Your task to perform on an android device: turn off sleep mode Image 0: 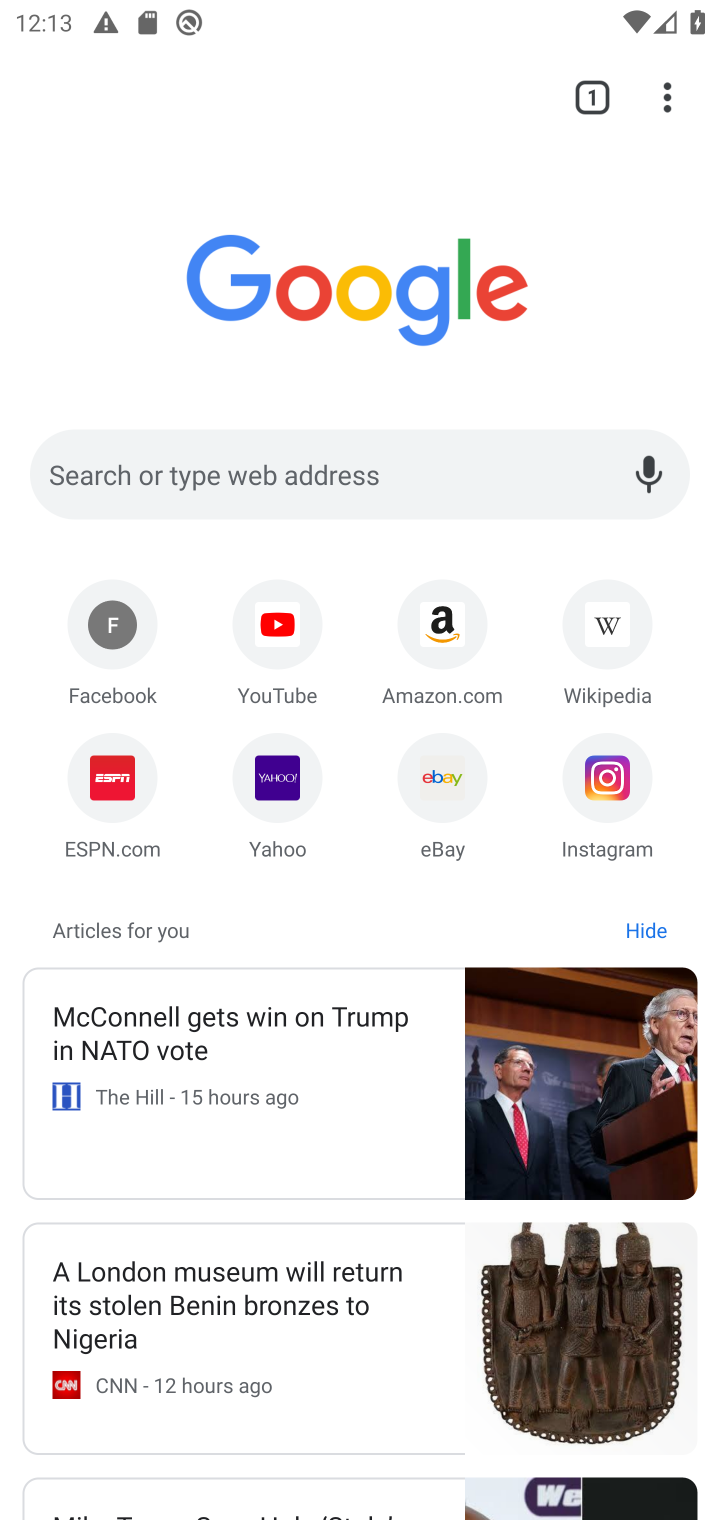
Step 0: press home button
Your task to perform on an android device: turn off sleep mode Image 1: 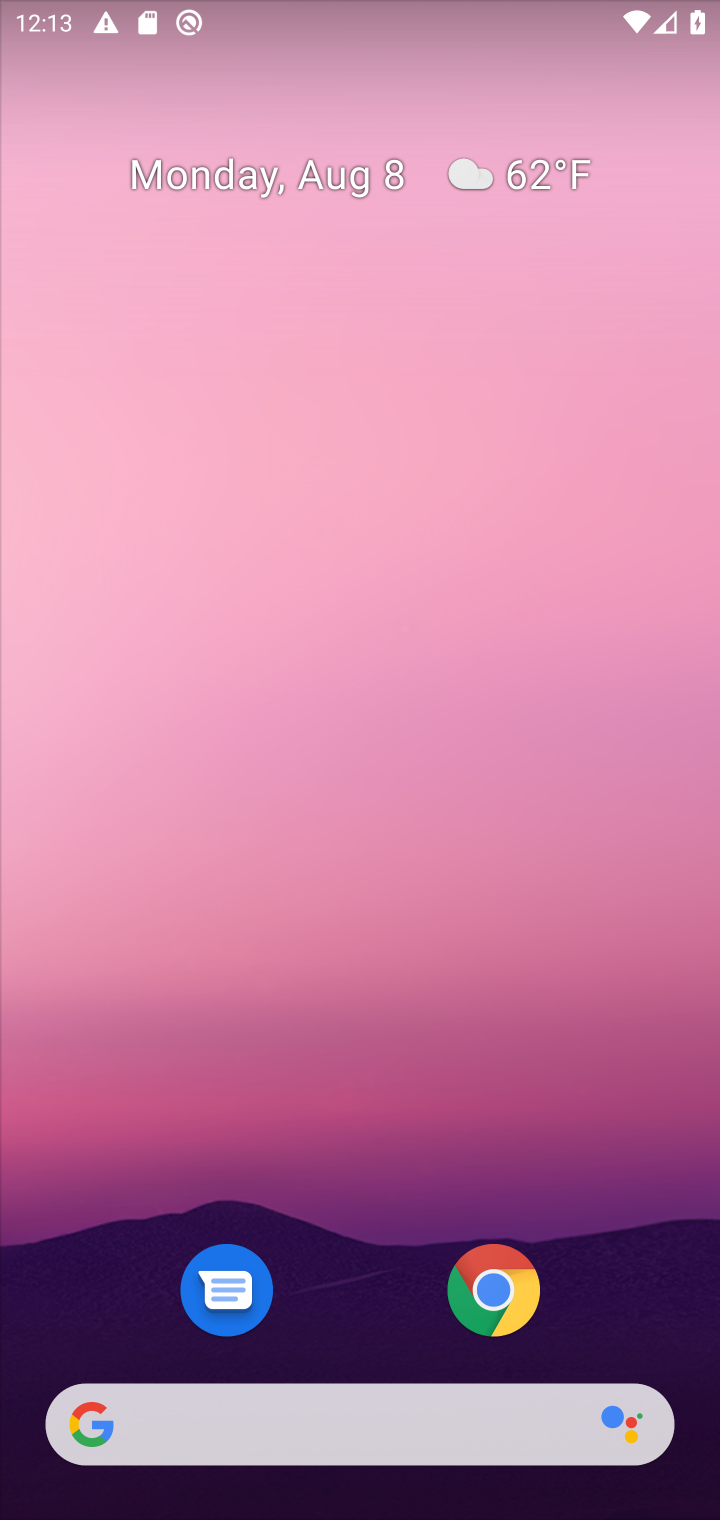
Step 1: drag from (332, 1320) to (439, 49)
Your task to perform on an android device: turn off sleep mode Image 2: 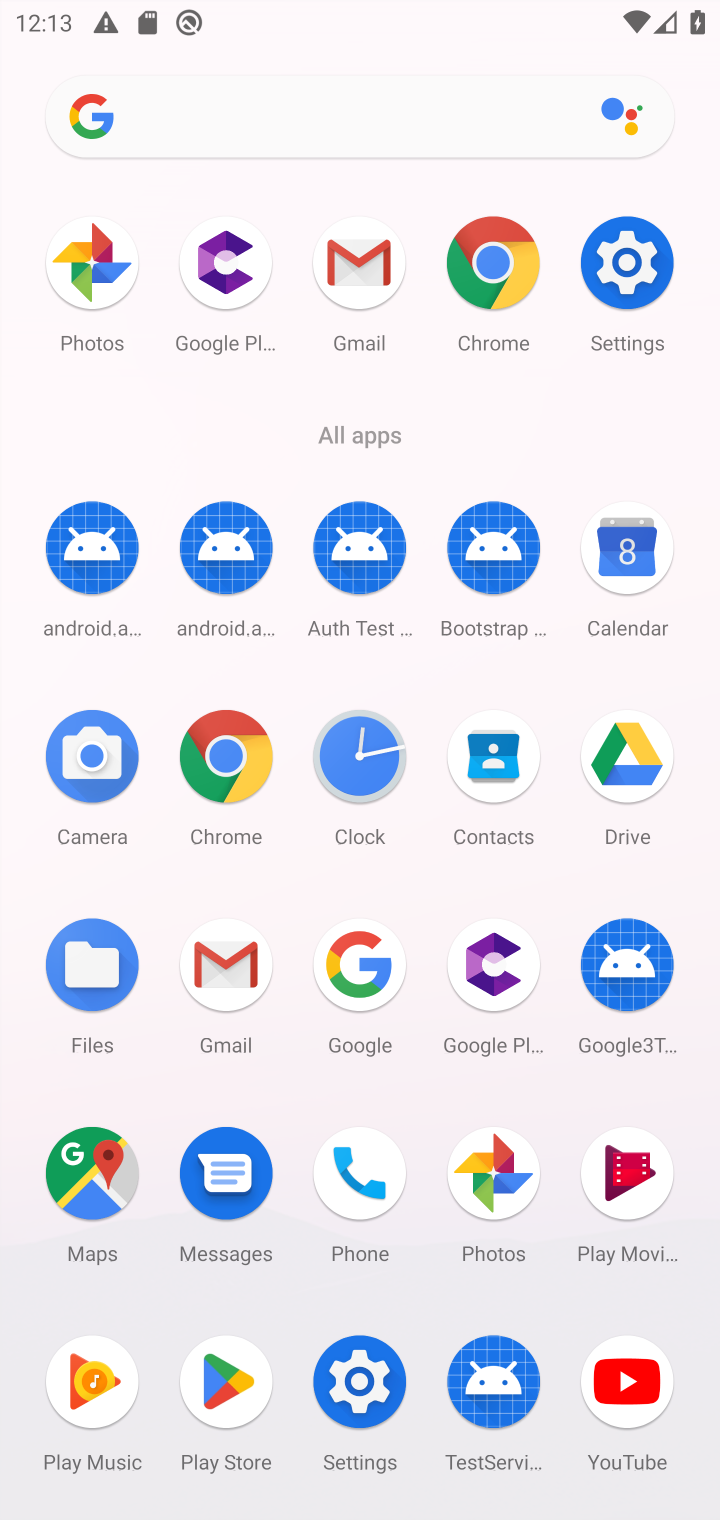
Step 2: click (353, 1383)
Your task to perform on an android device: turn off sleep mode Image 3: 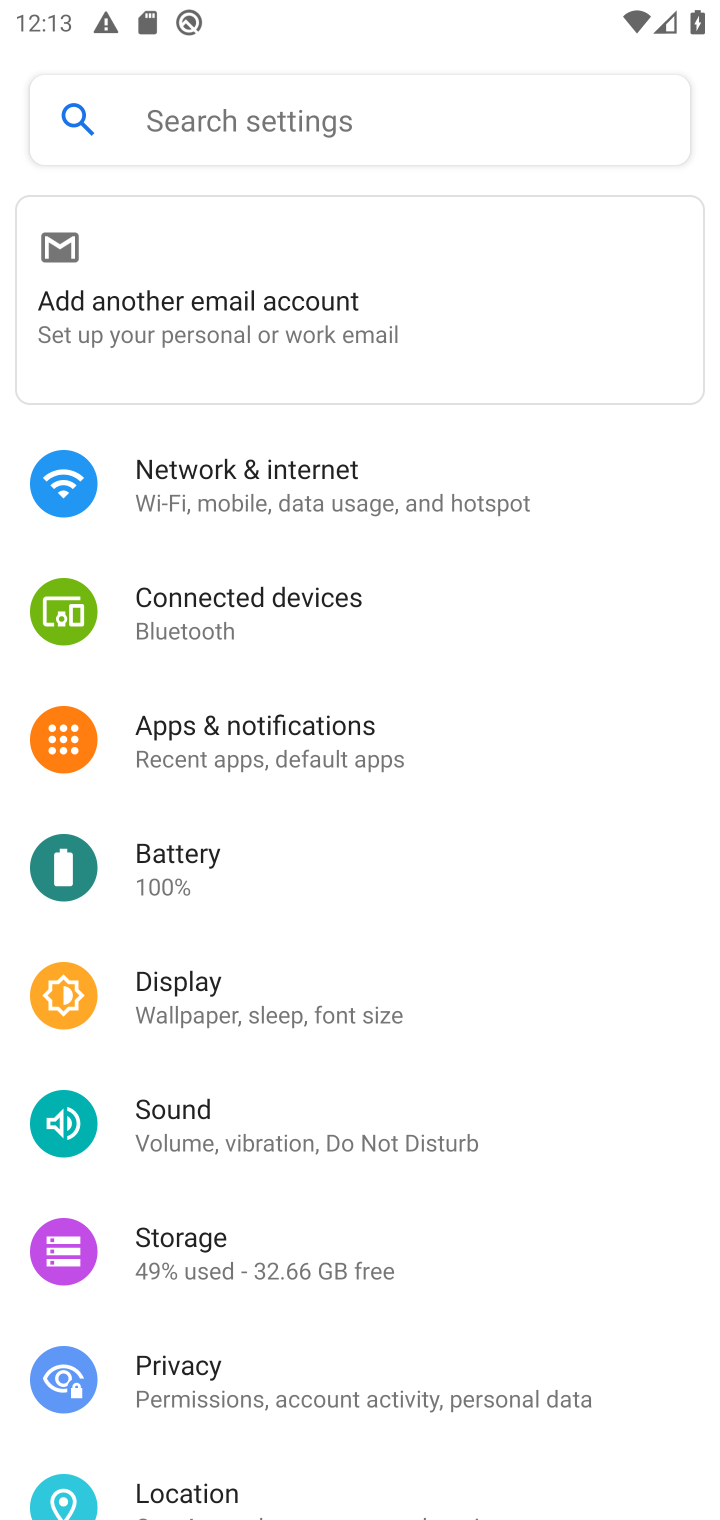
Step 3: drag from (289, 1191) to (258, 1500)
Your task to perform on an android device: turn off sleep mode Image 4: 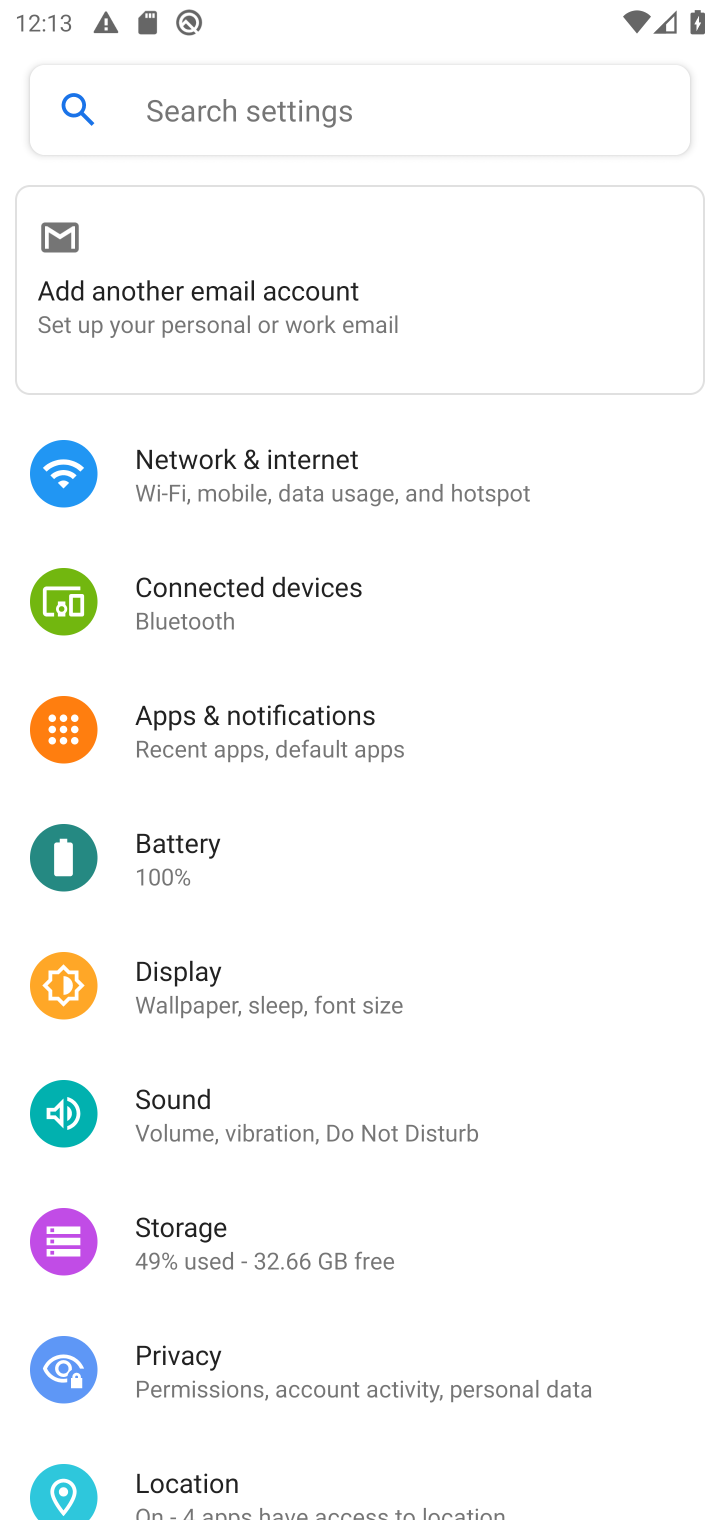
Step 4: click (337, 119)
Your task to perform on an android device: turn off sleep mode Image 5: 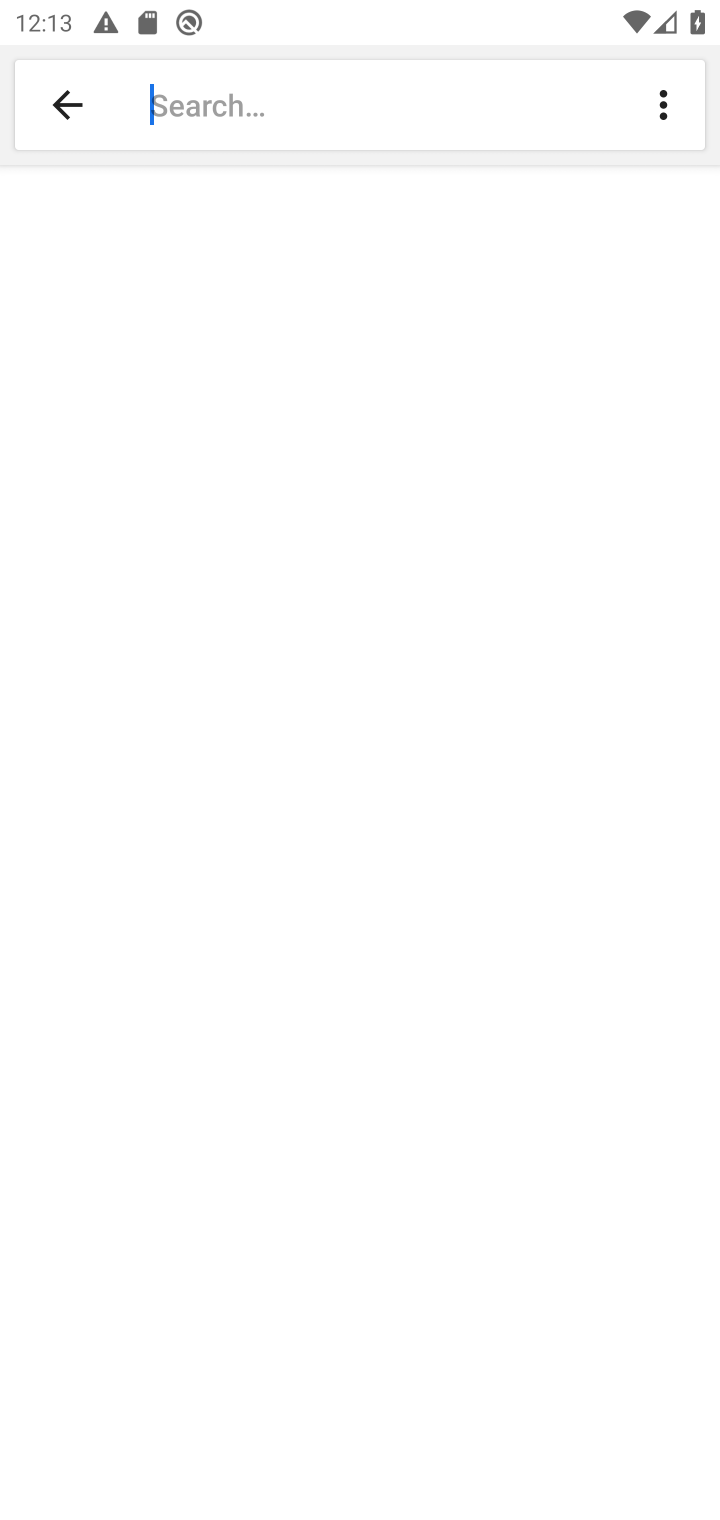
Step 5: click (498, 100)
Your task to perform on an android device: turn off sleep mode Image 6: 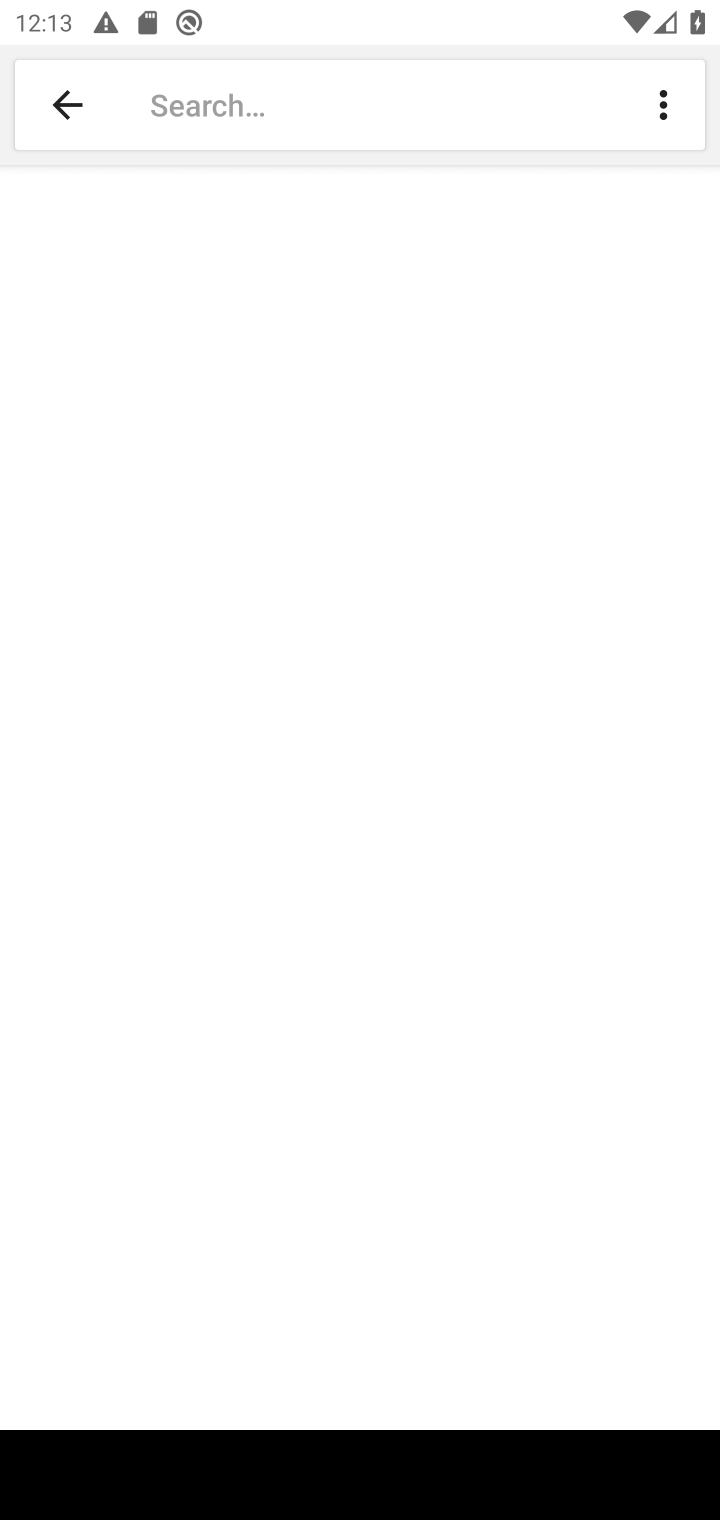
Step 6: type "sleep mode"
Your task to perform on an android device: turn off sleep mode Image 7: 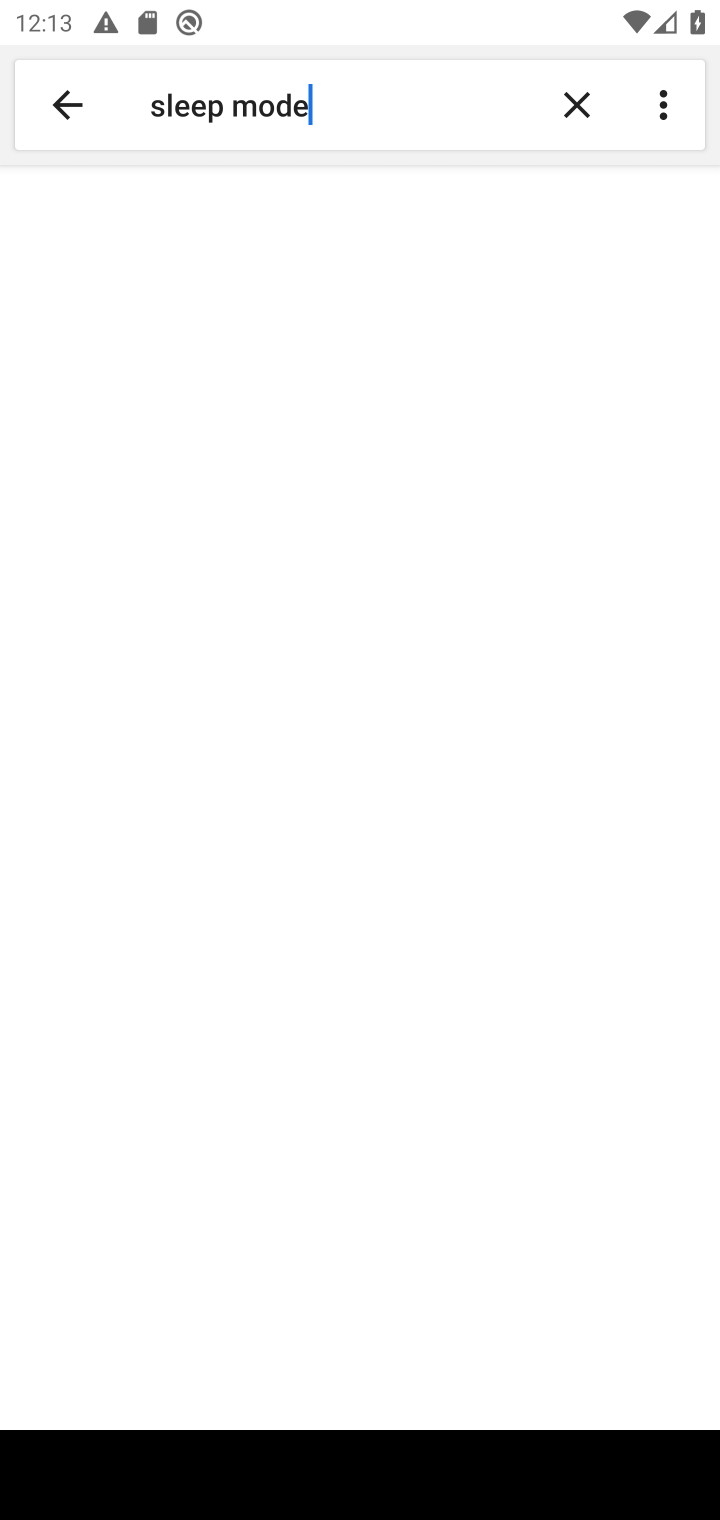
Step 7: click (225, 240)
Your task to perform on an android device: turn off sleep mode Image 8: 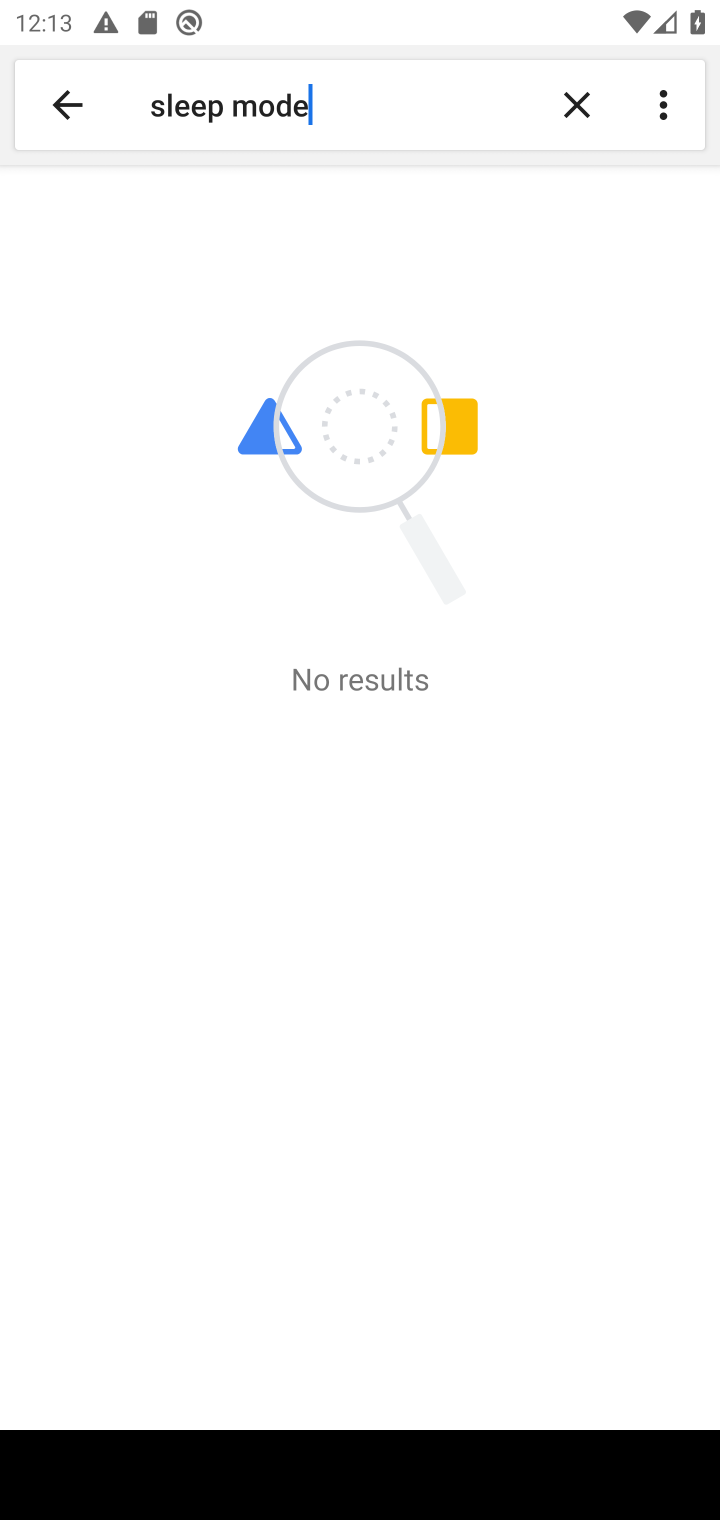
Step 8: task complete